Your task to perform on an android device: Open internet settings Image 0: 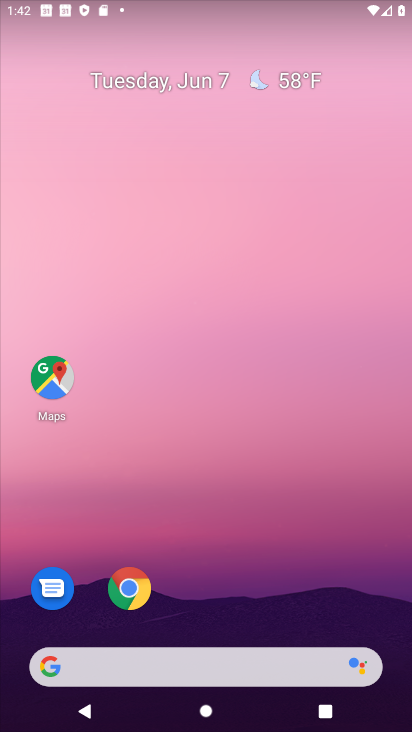
Step 0: drag from (245, 618) to (131, 67)
Your task to perform on an android device: Open internet settings Image 1: 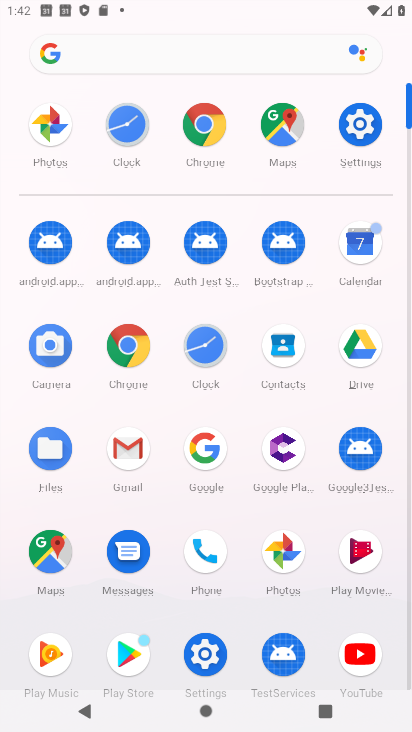
Step 1: click (376, 142)
Your task to perform on an android device: Open internet settings Image 2: 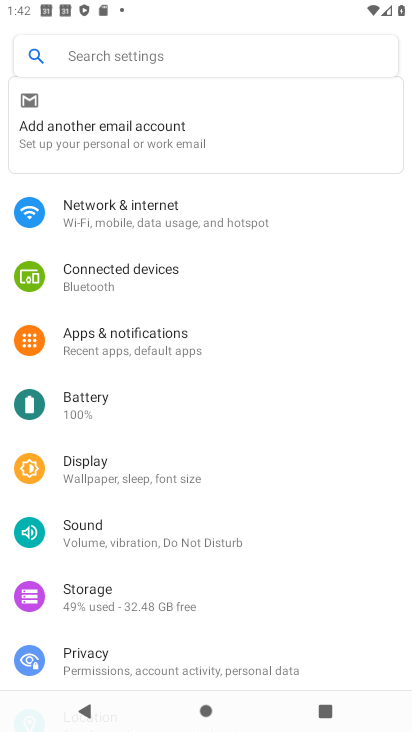
Step 2: click (224, 210)
Your task to perform on an android device: Open internet settings Image 3: 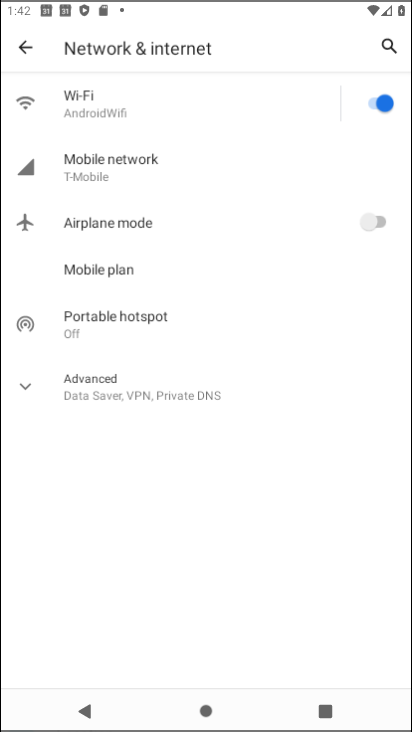
Step 3: task complete